Your task to perform on an android device: empty trash in google photos Image 0: 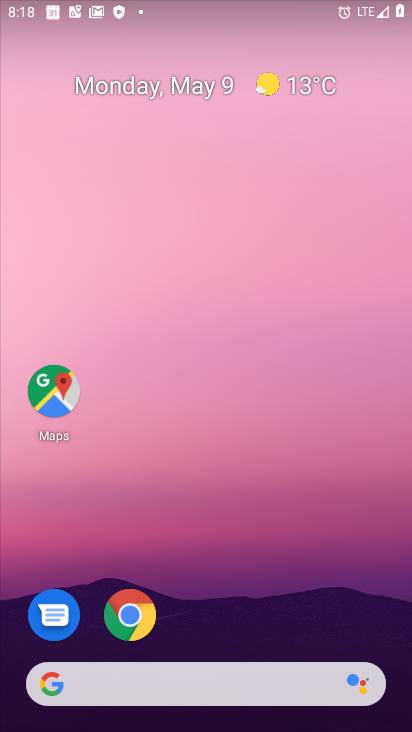
Step 0: drag from (198, 638) to (229, 106)
Your task to perform on an android device: empty trash in google photos Image 1: 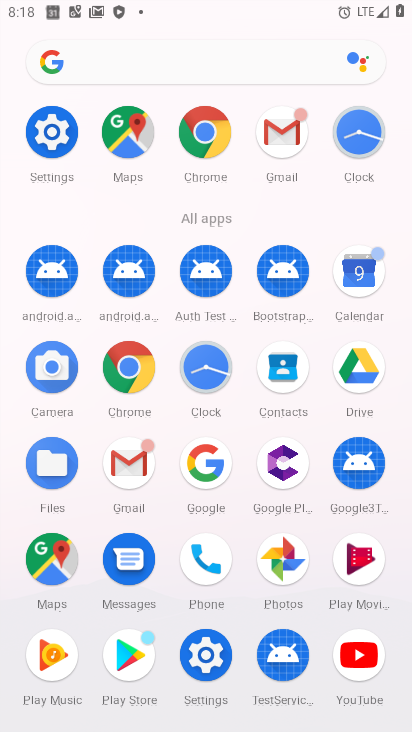
Step 1: click (284, 552)
Your task to perform on an android device: empty trash in google photos Image 2: 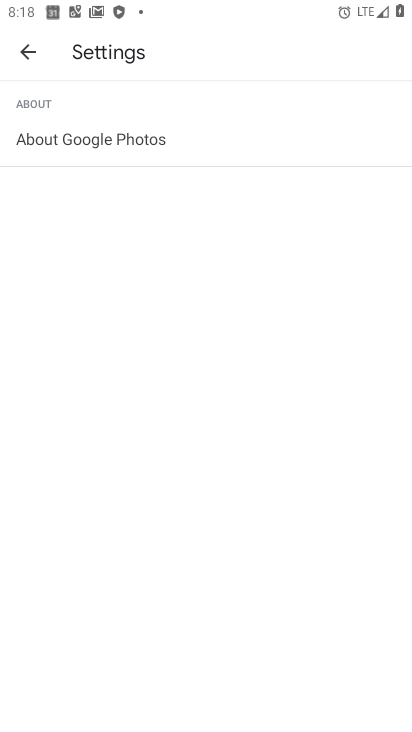
Step 2: click (36, 58)
Your task to perform on an android device: empty trash in google photos Image 3: 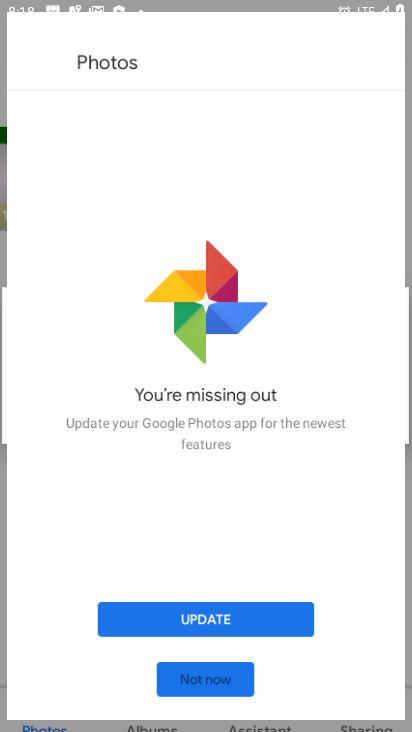
Step 3: click (36, 58)
Your task to perform on an android device: empty trash in google photos Image 4: 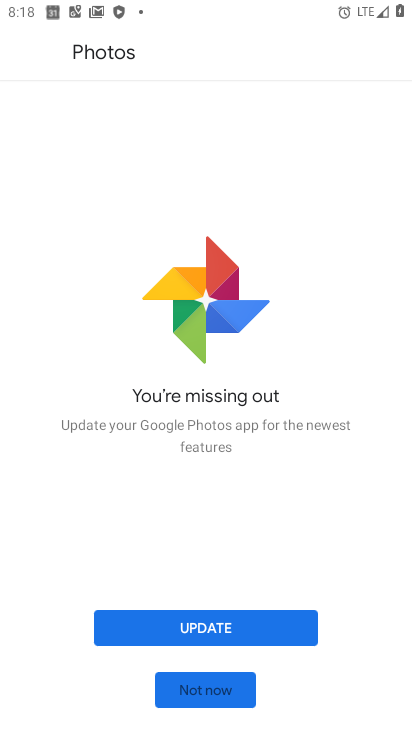
Step 4: click (222, 680)
Your task to perform on an android device: empty trash in google photos Image 5: 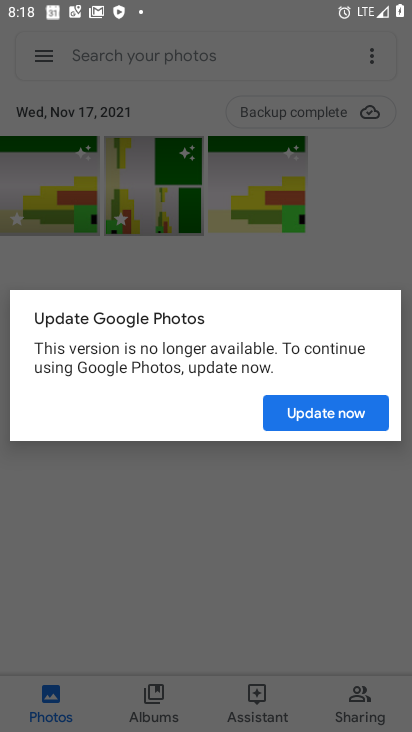
Step 5: click (338, 415)
Your task to perform on an android device: empty trash in google photos Image 6: 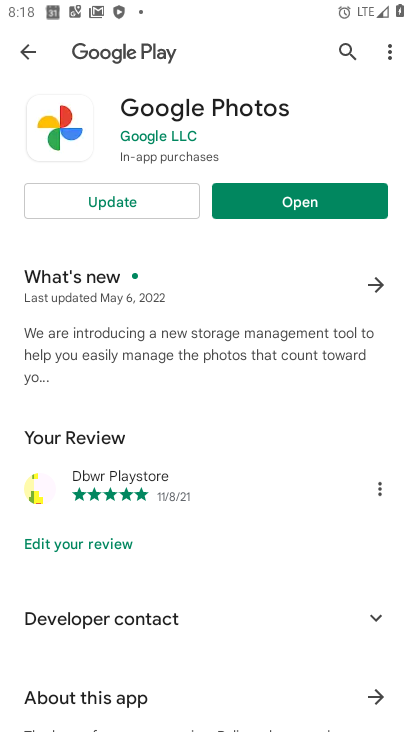
Step 6: click (308, 198)
Your task to perform on an android device: empty trash in google photos Image 7: 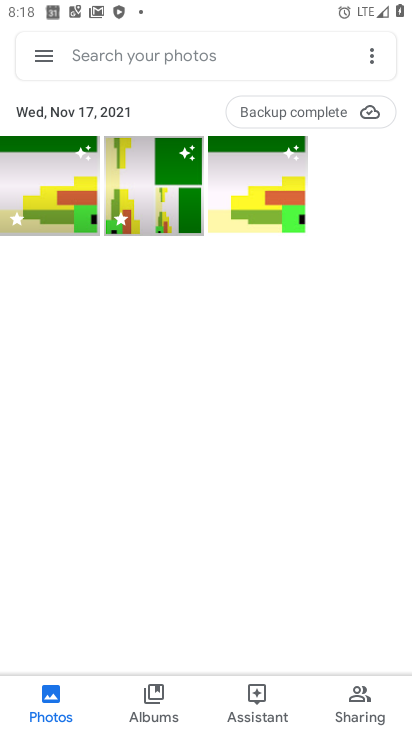
Step 7: click (50, 54)
Your task to perform on an android device: empty trash in google photos Image 8: 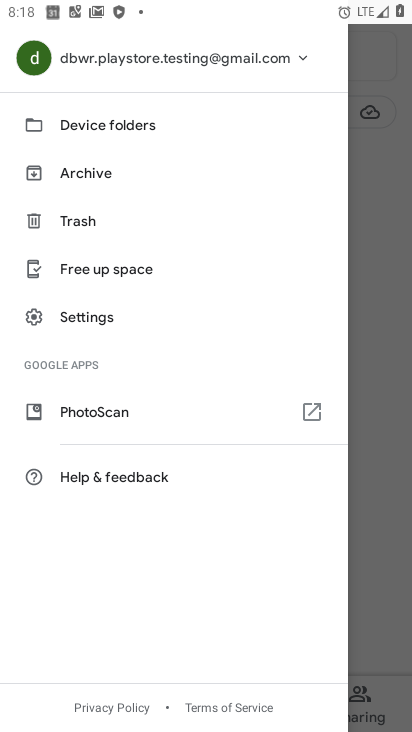
Step 8: click (111, 226)
Your task to perform on an android device: empty trash in google photos Image 9: 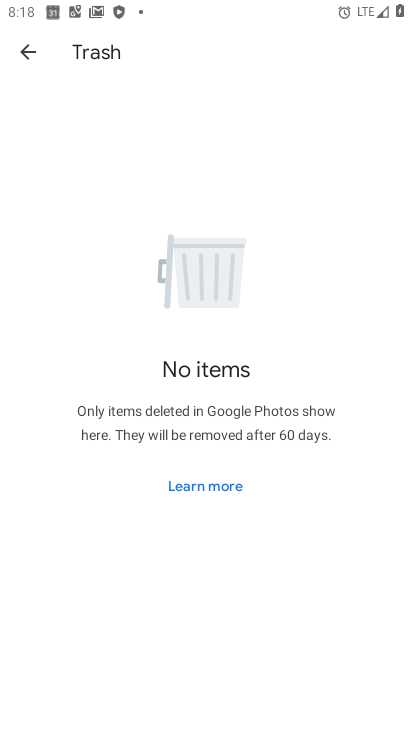
Step 9: task complete